Your task to perform on an android device: open app "LiveIn - Share Your Moment" (install if not already installed) and enter user name: "certifies@gmail.com" and password: "compartmented" Image 0: 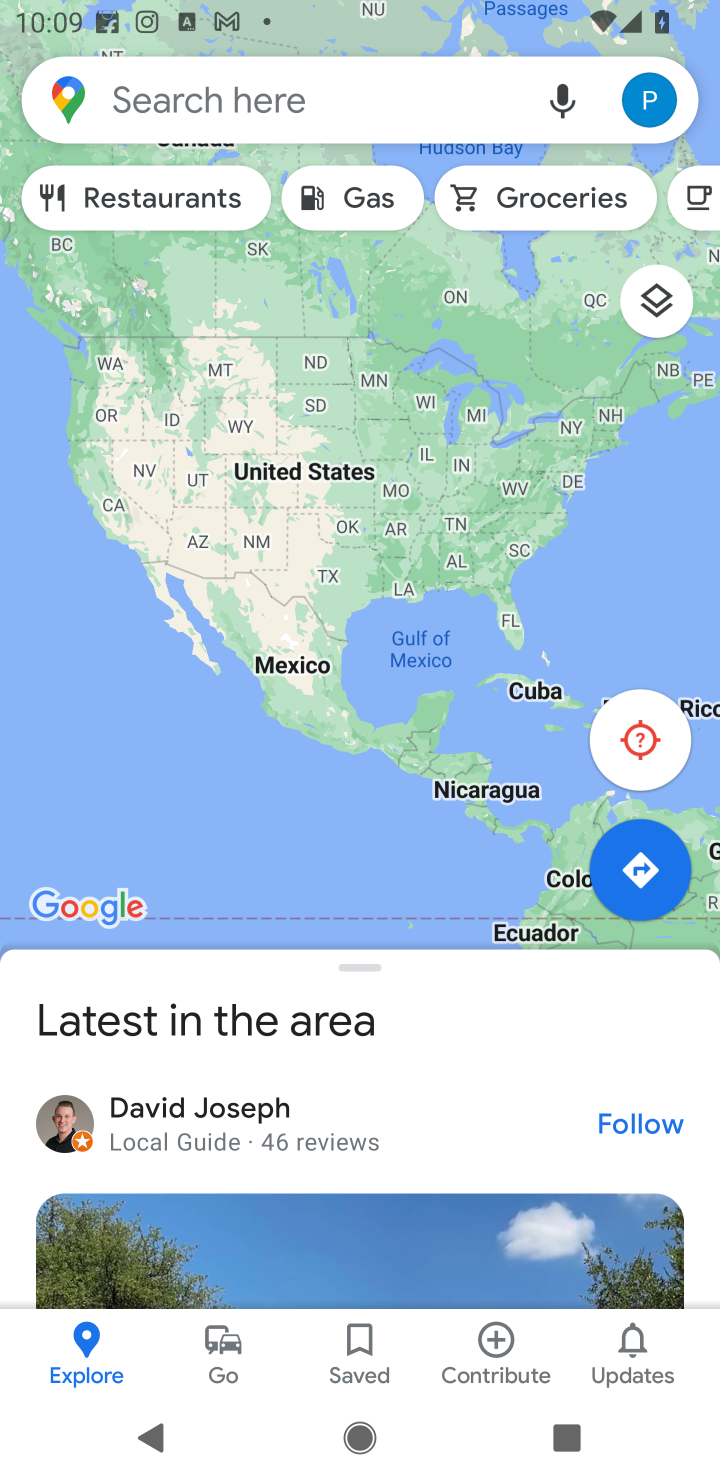
Step 0: press home button
Your task to perform on an android device: open app "LiveIn - Share Your Moment" (install if not already installed) and enter user name: "certifies@gmail.com" and password: "compartmented" Image 1: 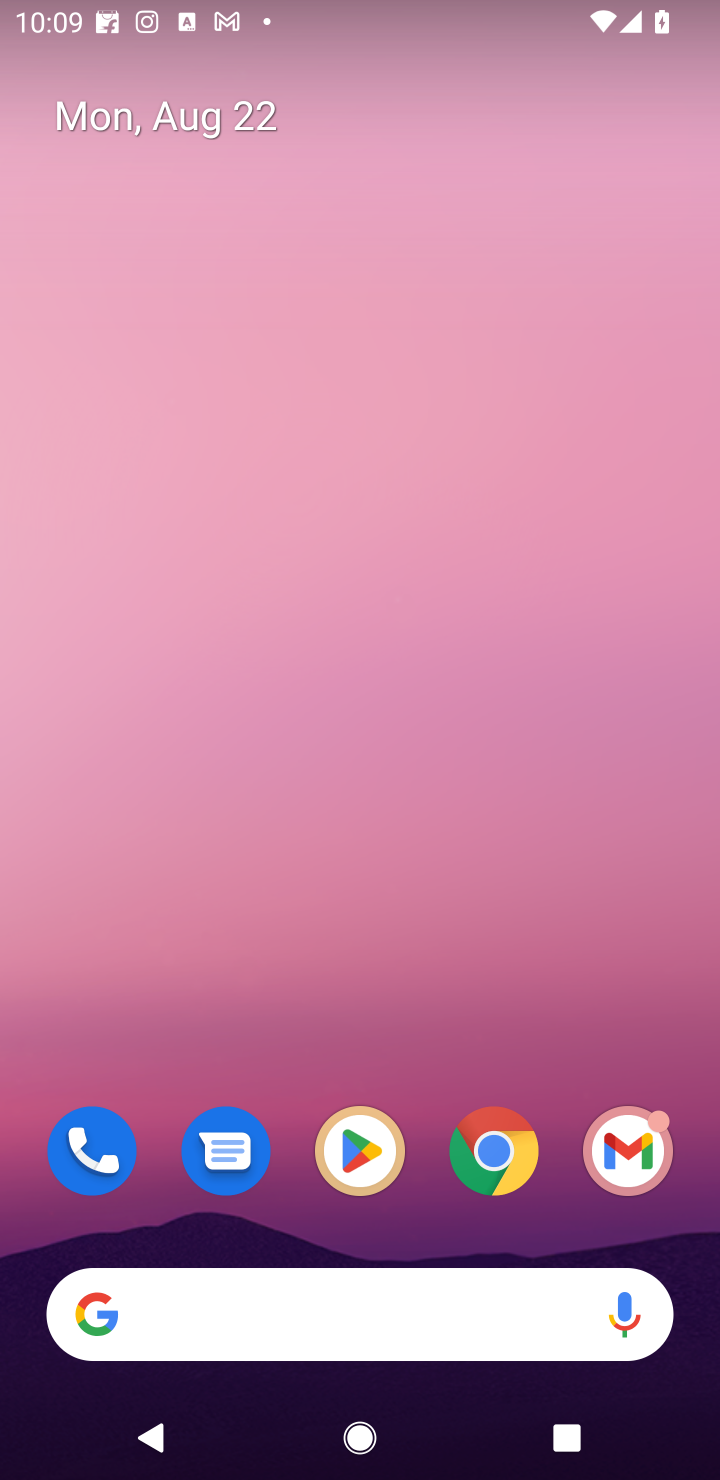
Step 1: click (302, 1185)
Your task to perform on an android device: open app "LiveIn - Share Your Moment" (install if not already installed) and enter user name: "certifies@gmail.com" and password: "compartmented" Image 2: 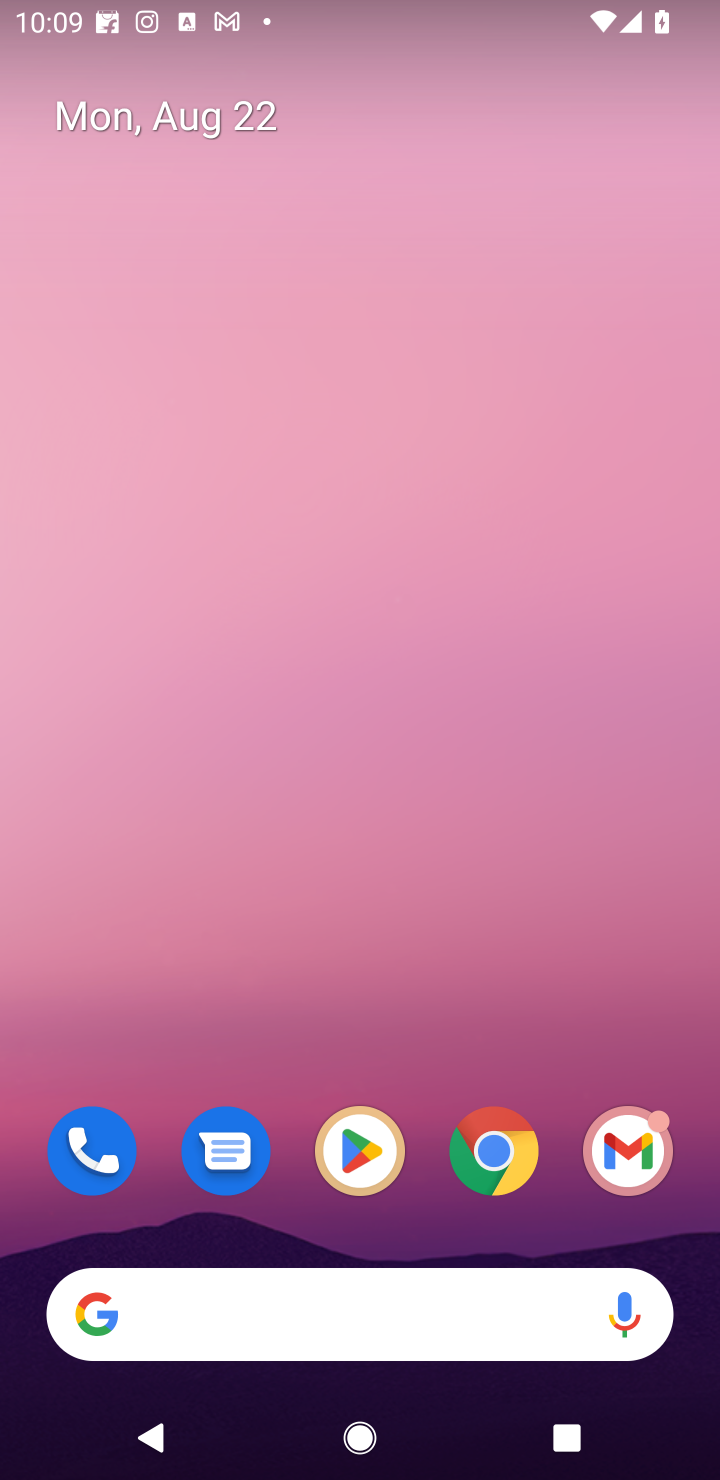
Step 2: click (331, 1164)
Your task to perform on an android device: open app "LiveIn - Share Your Moment" (install if not already installed) and enter user name: "certifies@gmail.com" and password: "compartmented" Image 3: 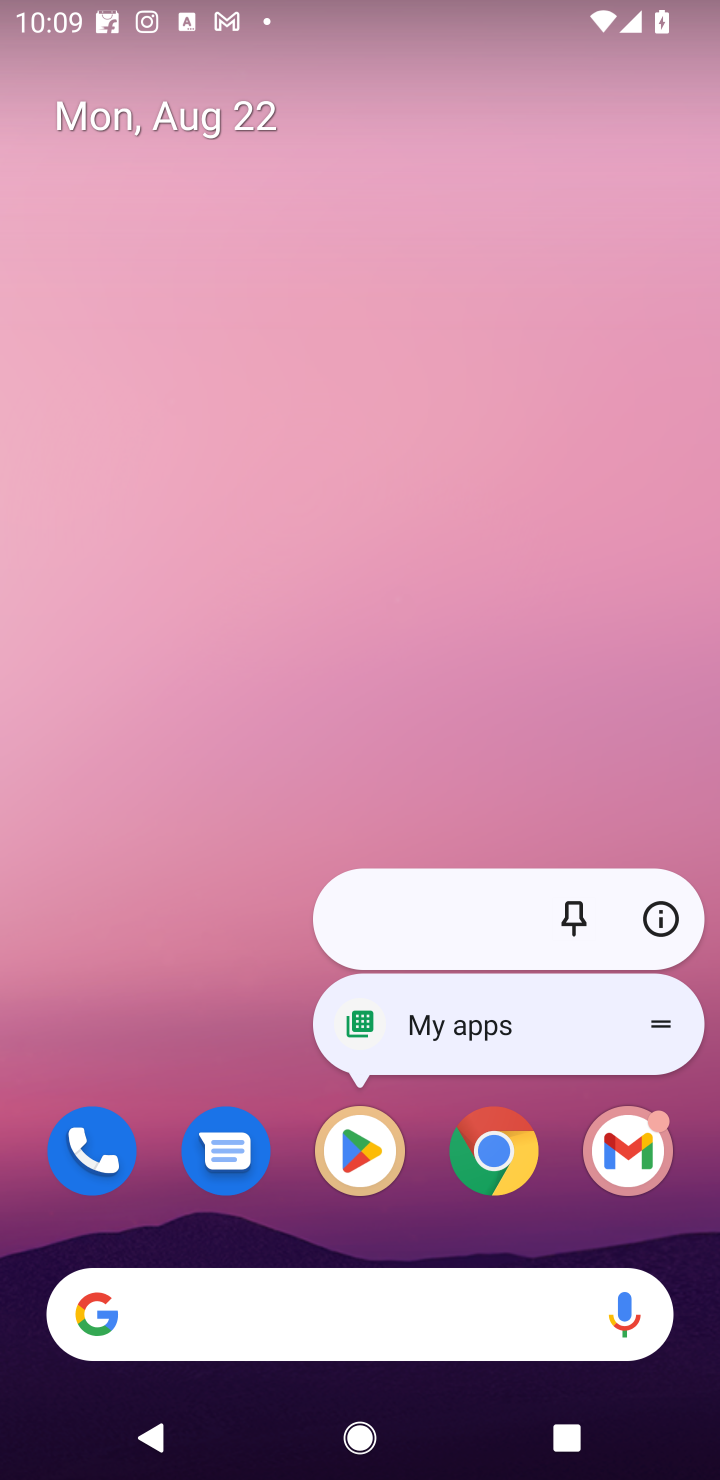
Step 3: click (331, 1171)
Your task to perform on an android device: open app "LiveIn - Share Your Moment" (install if not already installed) and enter user name: "certifies@gmail.com" and password: "compartmented" Image 4: 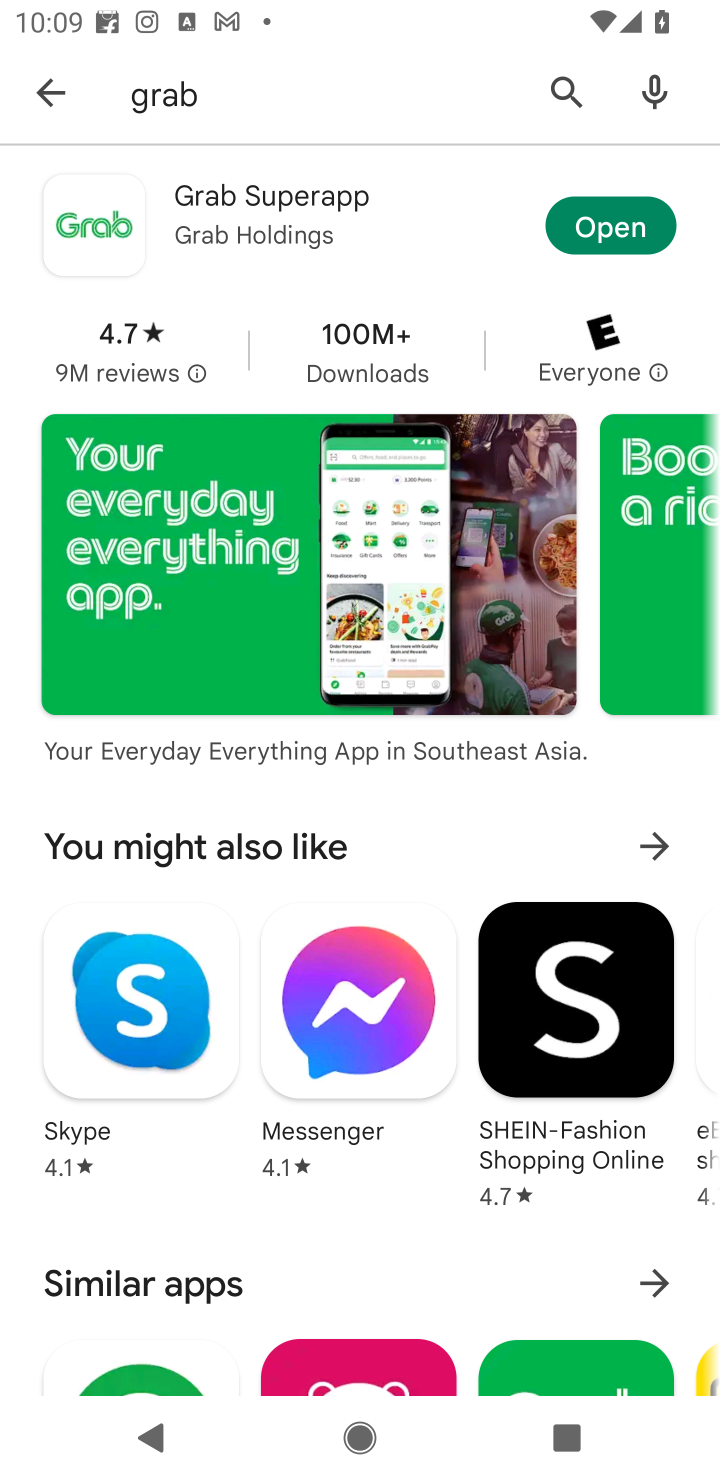
Step 4: click (565, 72)
Your task to perform on an android device: open app "LiveIn - Share Your Moment" (install if not already installed) and enter user name: "certifies@gmail.com" and password: "compartmented" Image 5: 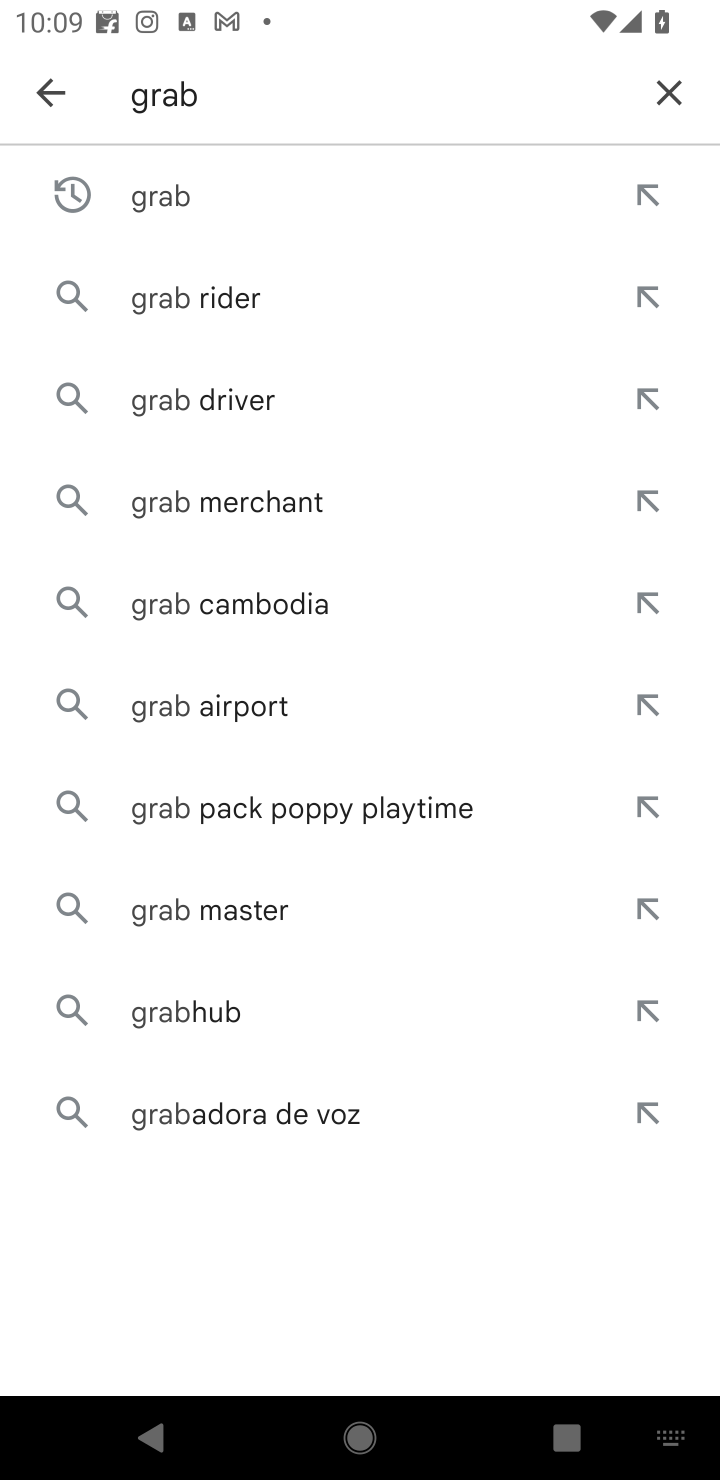
Step 5: click (669, 89)
Your task to perform on an android device: open app "LiveIn - Share Your Moment" (install if not already installed) and enter user name: "certifies@gmail.com" and password: "compartmented" Image 6: 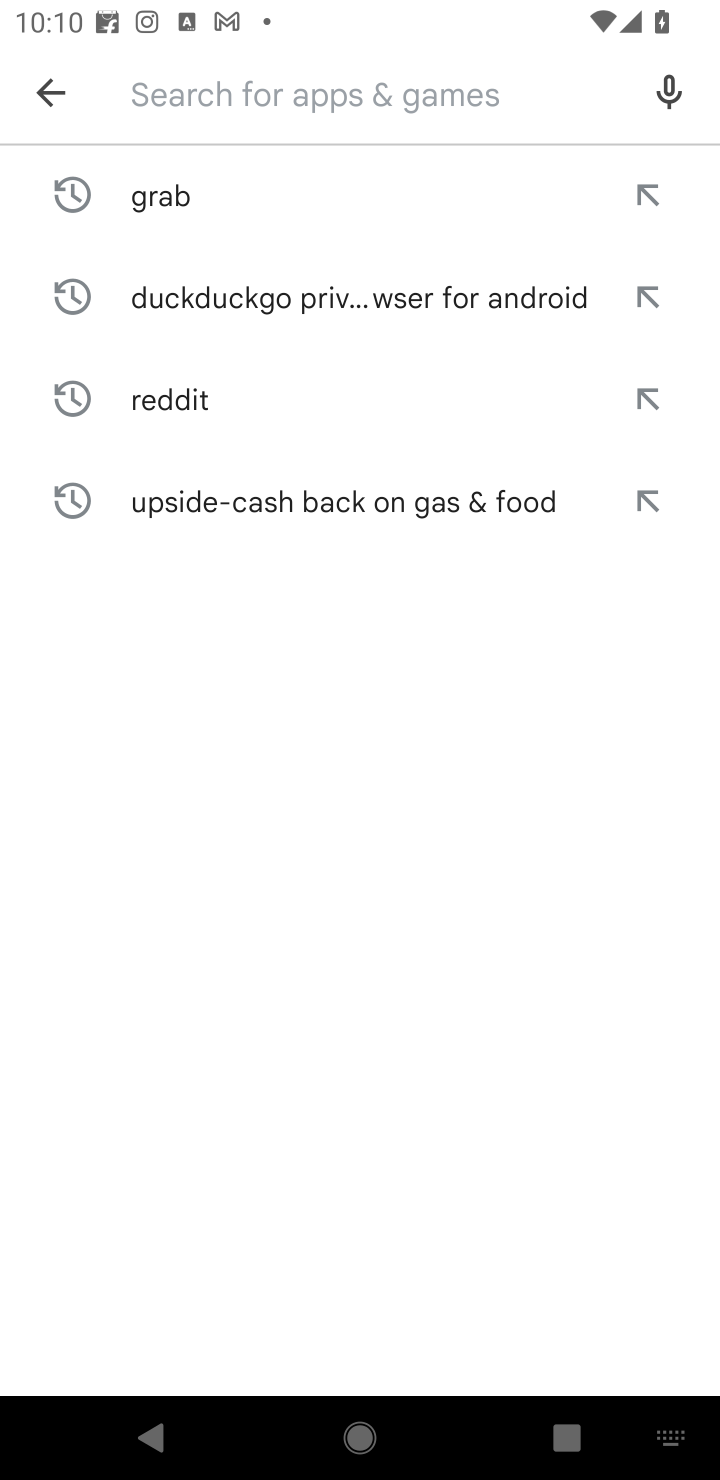
Step 6: type "LiveIn Share Your Moment"
Your task to perform on an android device: open app "LiveIn - Share Your Moment" (install if not already installed) and enter user name: "certifies@gmail.com" and password: "compartmented" Image 7: 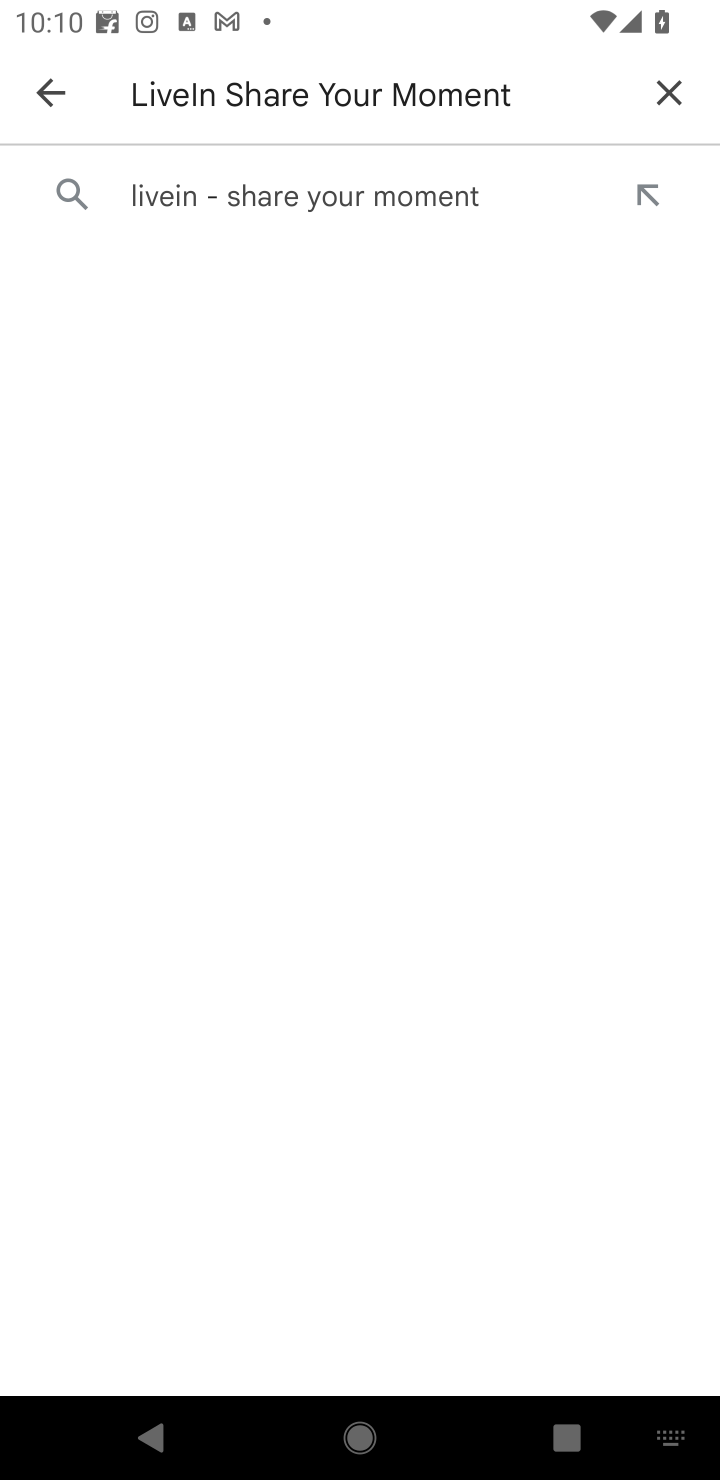
Step 7: click (330, 196)
Your task to perform on an android device: open app "LiveIn - Share Your Moment" (install if not already installed) and enter user name: "certifies@gmail.com" and password: "compartmented" Image 8: 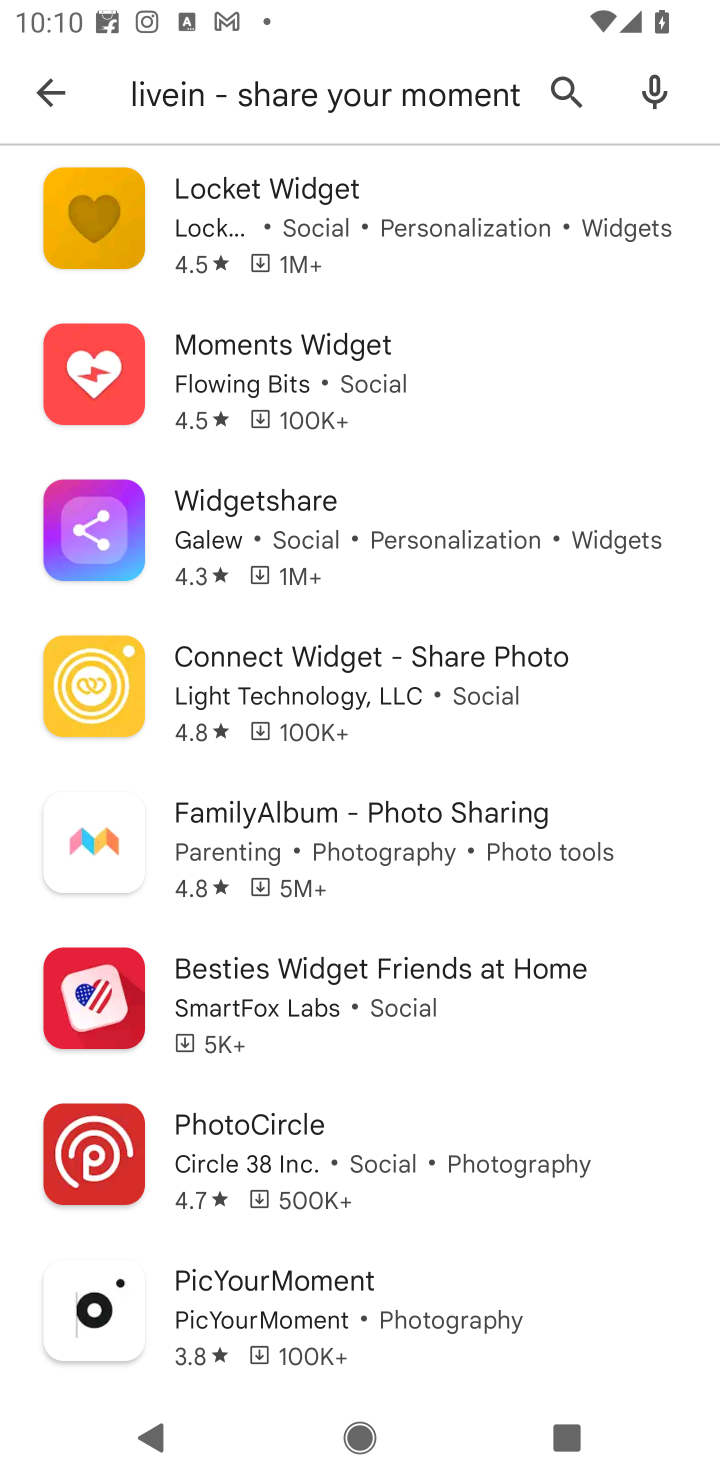
Step 8: task complete